Your task to perform on an android device: turn vacation reply on in the gmail app Image 0: 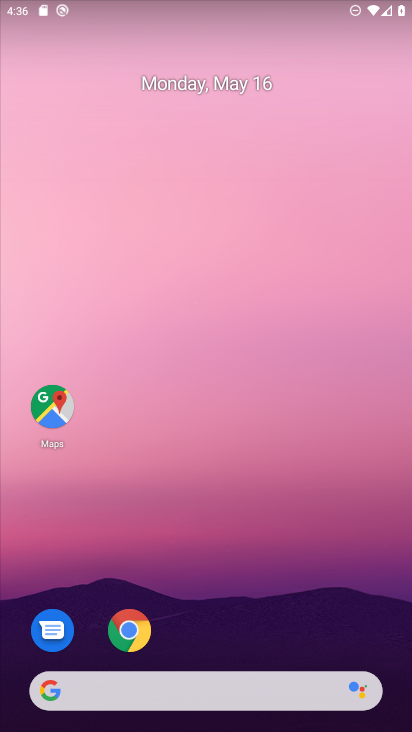
Step 0: press home button
Your task to perform on an android device: turn vacation reply on in the gmail app Image 1: 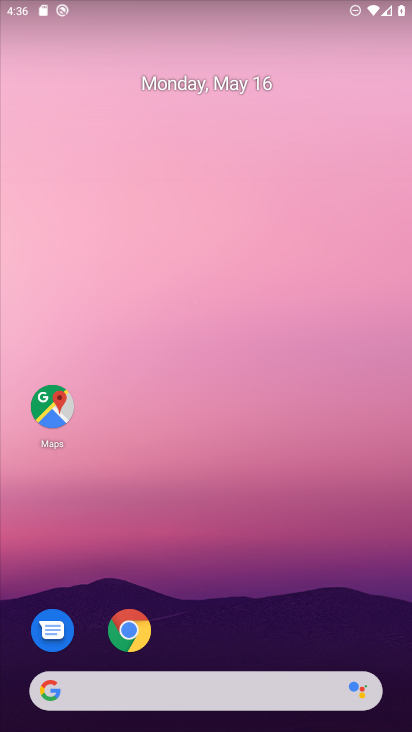
Step 1: drag from (348, 618) to (410, 362)
Your task to perform on an android device: turn vacation reply on in the gmail app Image 2: 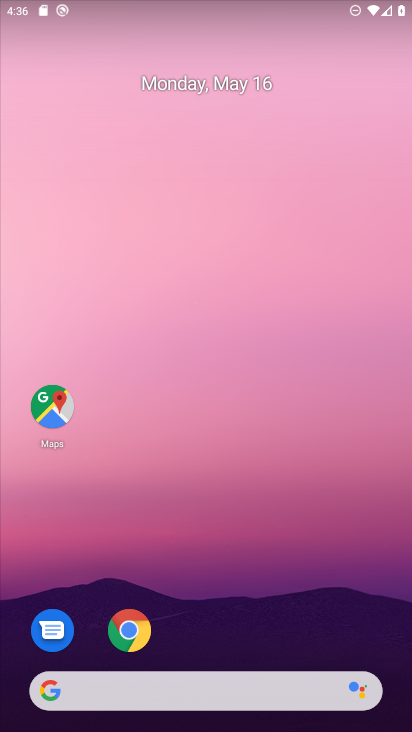
Step 2: drag from (225, 613) to (299, 2)
Your task to perform on an android device: turn vacation reply on in the gmail app Image 3: 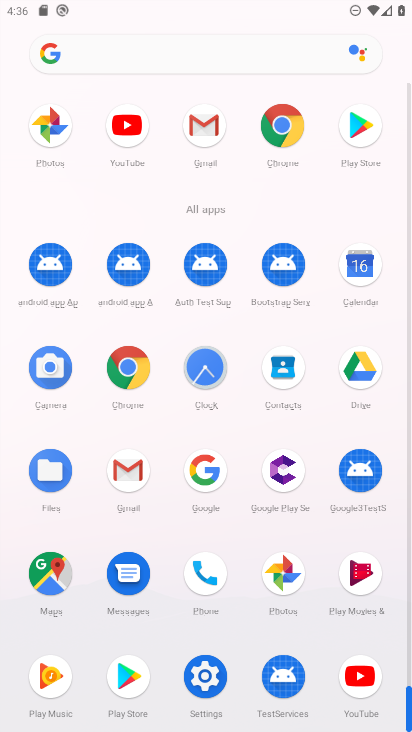
Step 3: click (210, 132)
Your task to perform on an android device: turn vacation reply on in the gmail app Image 4: 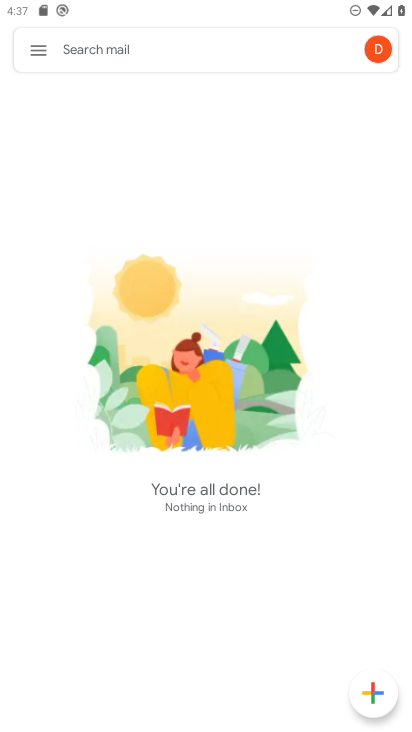
Step 4: click (27, 58)
Your task to perform on an android device: turn vacation reply on in the gmail app Image 5: 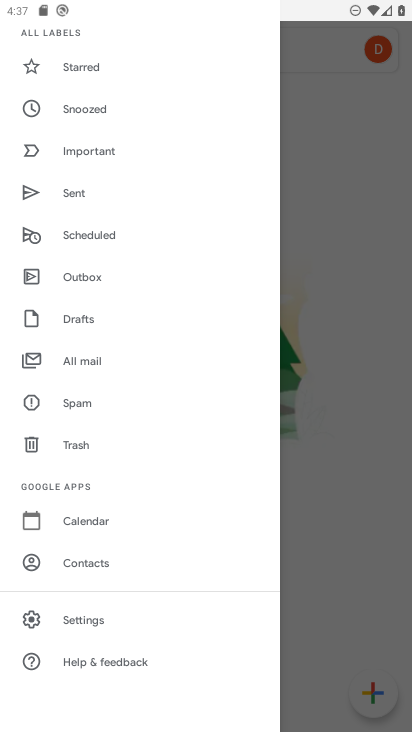
Step 5: click (93, 621)
Your task to perform on an android device: turn vacation reply on in the gmail app Image 6: 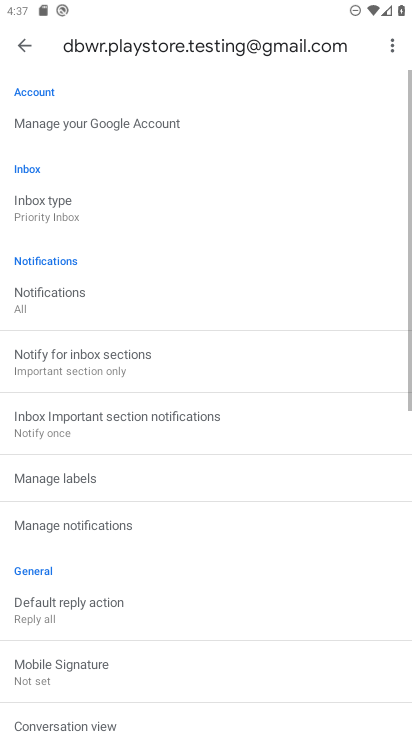
Step 6: drag from (156, 147) to (411, 26)
Your task to perform on an android device: turn vacation reply on in the gmail app Image 7: 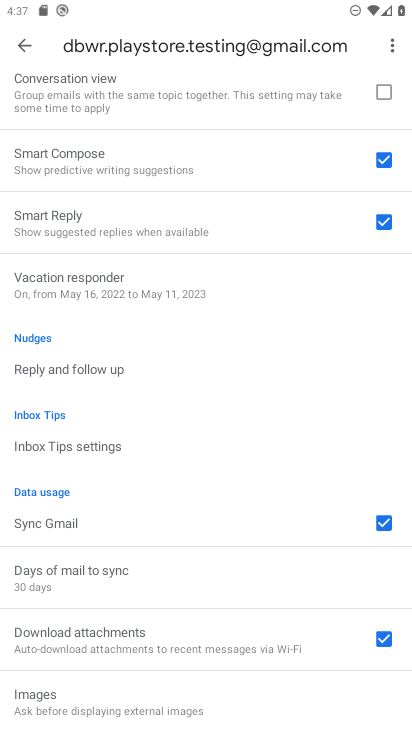
Step 7: click (121, 301)
Your task to perform on an android device: turn vacation reply on in the gmail app Image 8: 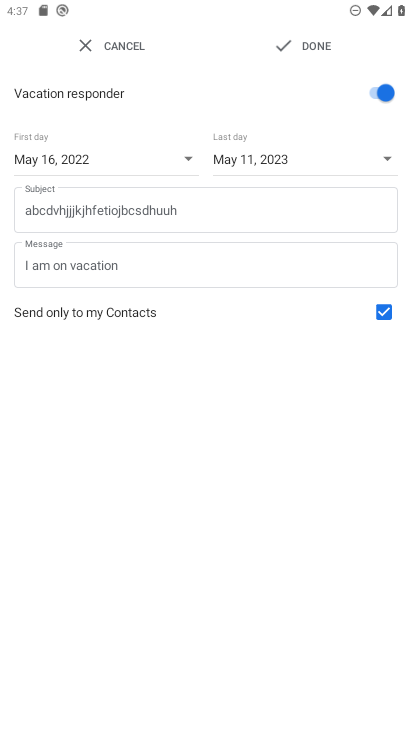
Step 8: click (274, 55)
Your task to perform on an android device: turn vacation reply on in the gmail app Image 9: 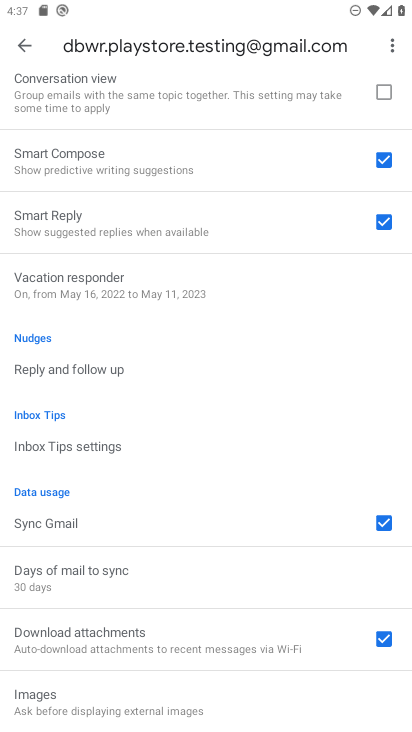
Step 9: task complete